Your task to perform on an android device: turn off priority inbox in the gmail app Image 0: 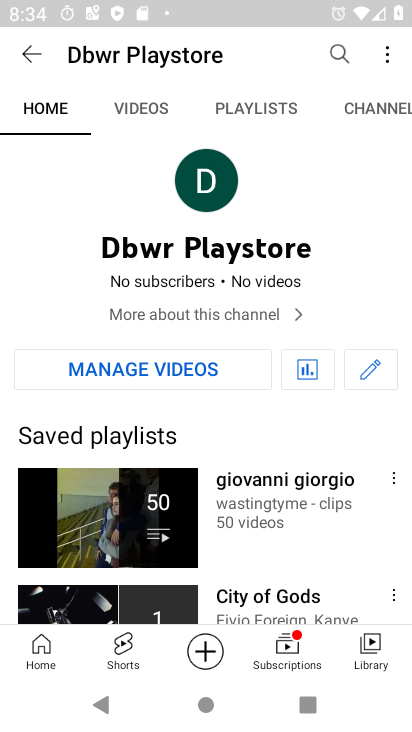
Step 0: press home button
Your task to perform on an android device: turn off priority inbox in the gmail app Image 1: 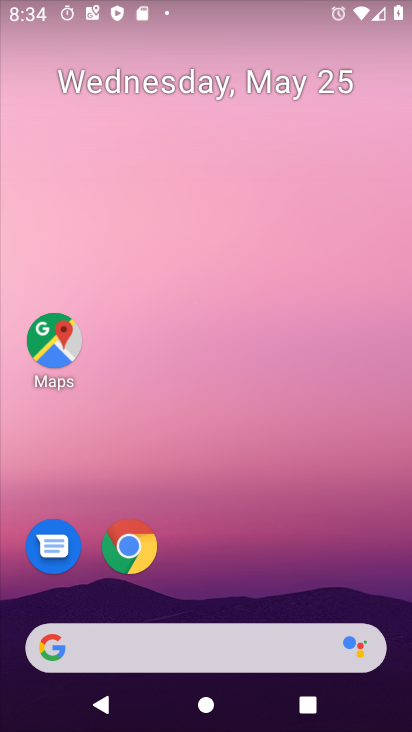
Step 1: drag from (217, 582) to (232, 41)
Your task to perform on an android device: turn off priority inbox in the gmail app Image 2: 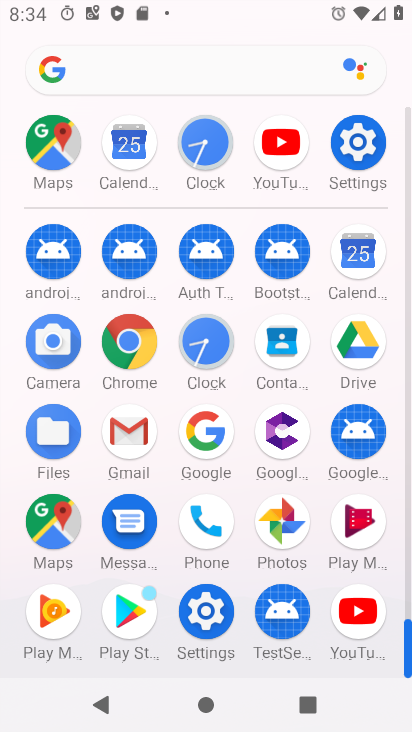
Step 2: click (116, 484)
Your task to perform on an android device: turn off priority inbox in the gmail app Image 3: 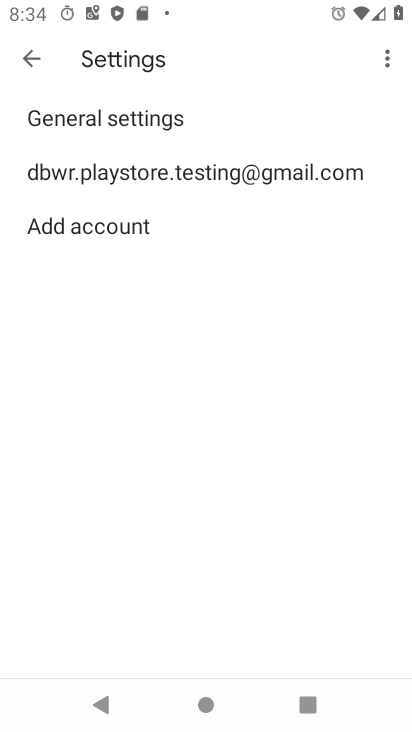
Step 3: click (105, 177)
Your task to perform on an android device: turn off priority inbox in the gmail app Image 4: 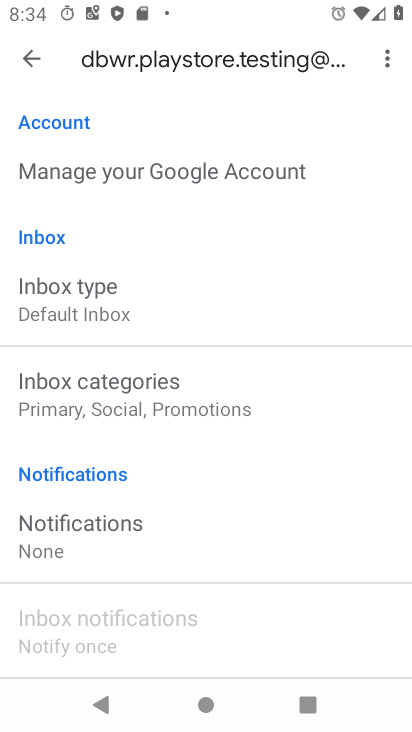
Step 4: click (78, 310)
Your task to perform on an android device: turn off priority inbox in the gmail app Image 5: 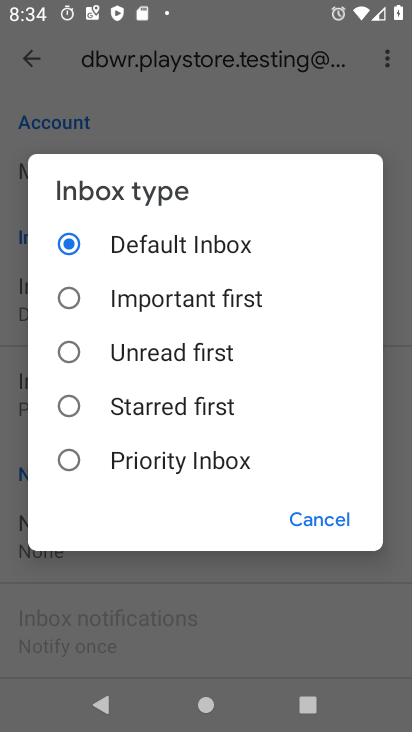
Step 5: task complete